Your task to perform on an android device: Open the stopwatch Image 0: 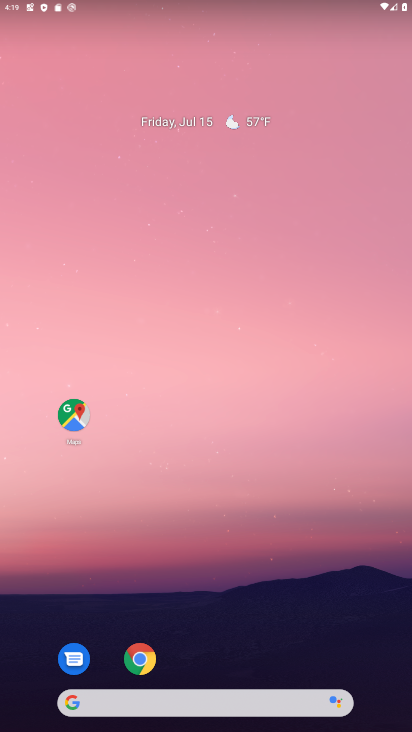
Step 0: drag from (267, 629) to (156, 69)
Your task to perform on an android device: Open the stopwatch Image 1: 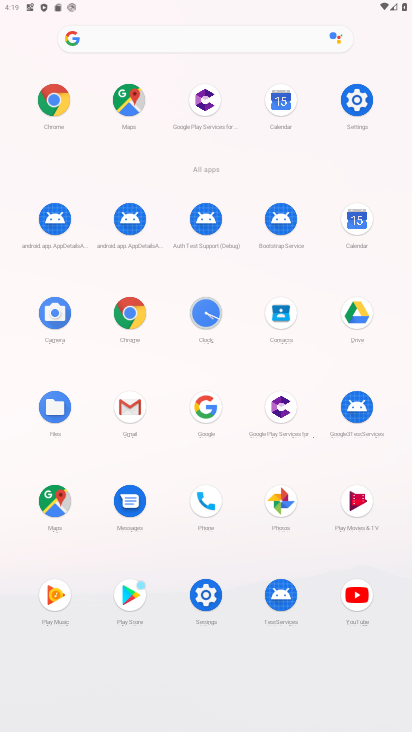
Step 1: click (205, 317)
Your task to perform on an android device: Open the stopwatch Image 2: 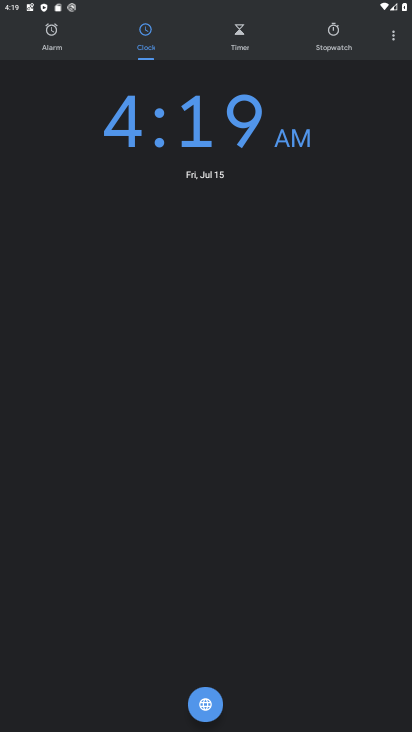
Step 2: click (341, 41)
Your task to perform on an android device: Open the stopwatch Image 3: 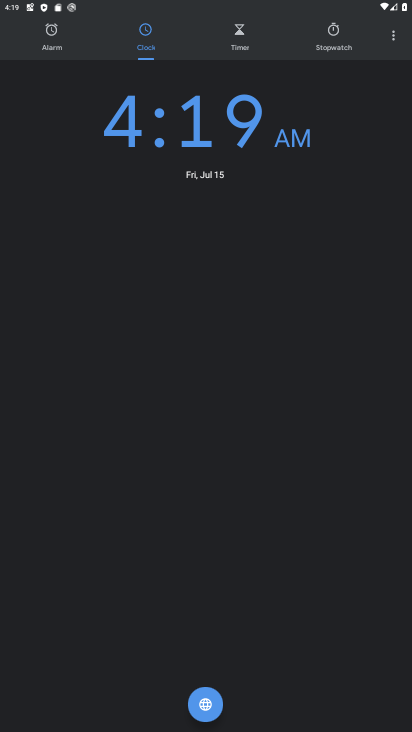
Step 3: click (334, 39)
Your task to perform on an android device: Open the stopwatch Image 4: 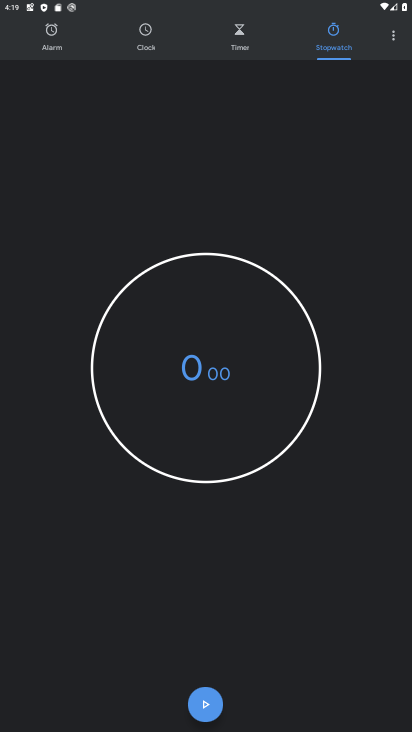
Step 4: task complete